Your task to perform on an android device: check android version Image 0: 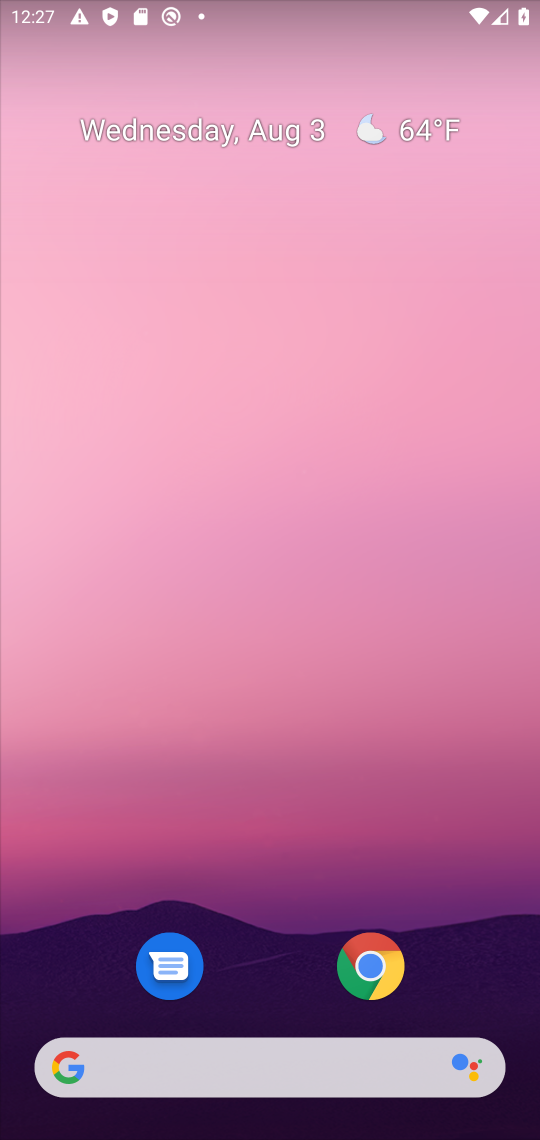
Step 0: drag from (252, 977) to (283, 300)
Your task to perform on an android device: check android version Image 1: 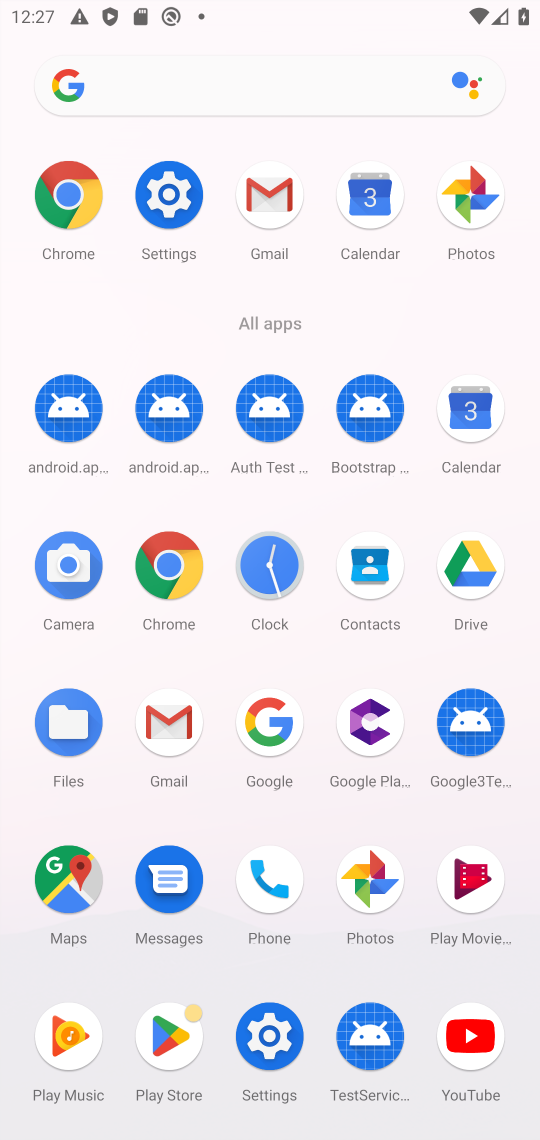
Step 1: click (179, 204)
Your task to perform on an android device: check android version Image 2: 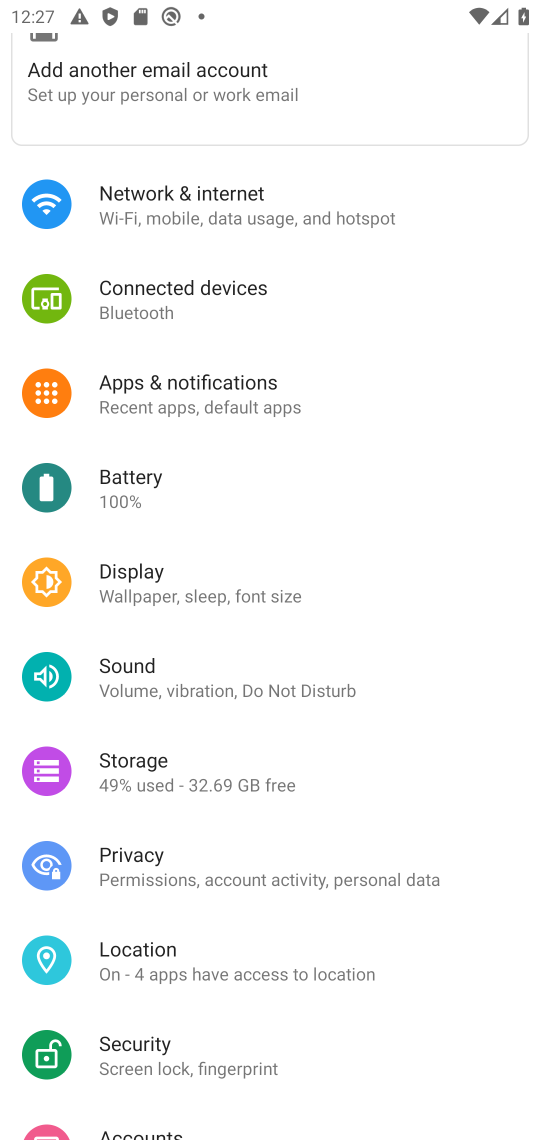
Step 2: drag from (258, 1037) to (258, 343)
Your task to perform on an android device: check android version Image 3: 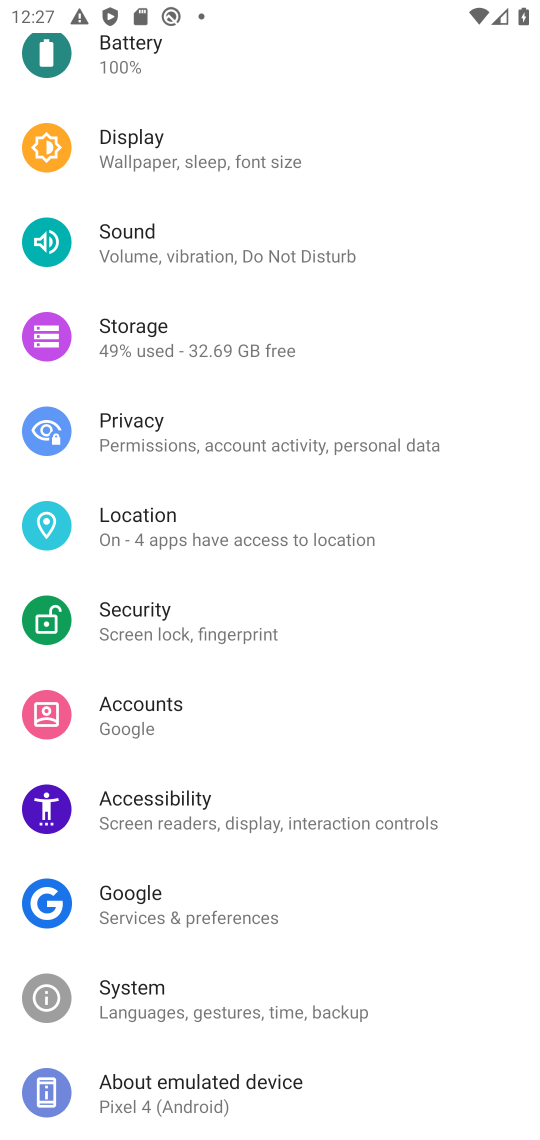
Step 3: drag from (252, 979) to (273, 453)
Your task to perform on an android device: check android version Image 4: 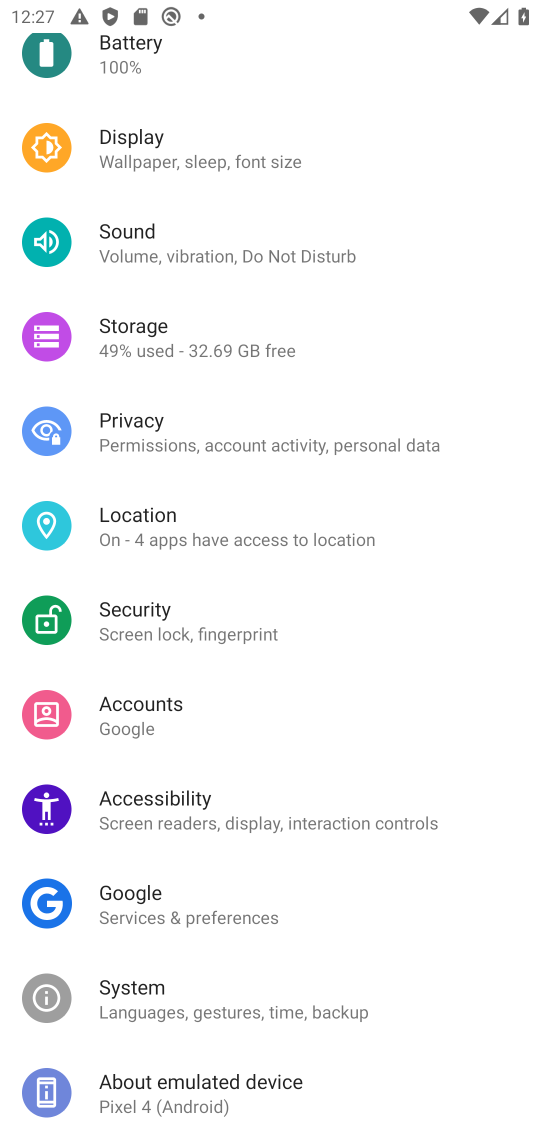
Step 4: click (211, 1076)
Your task to perform on an android device: check android version Image 5: 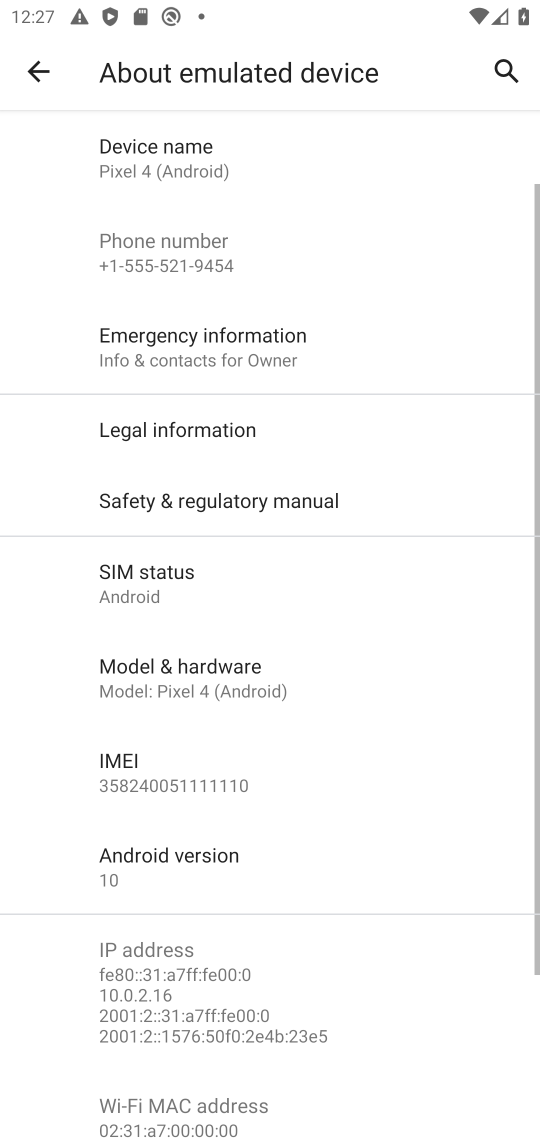
Step 5: drag from (208, 975) to (308, 377)
Your task to perform on an android device: check android version Image 6: 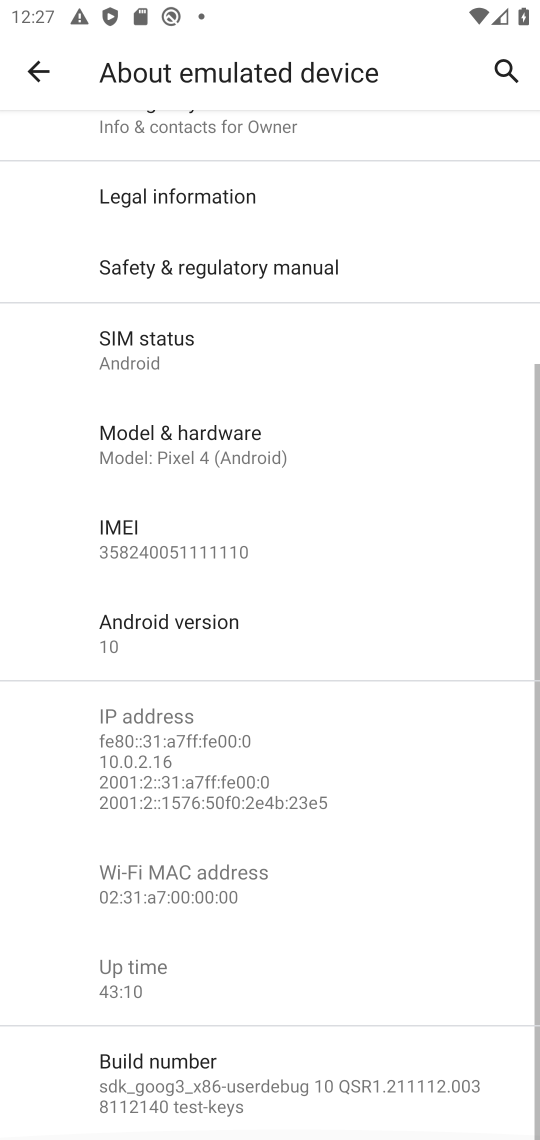
Step 6: click (252, 655)
Your task to perform on an android device: check android version Image 7: 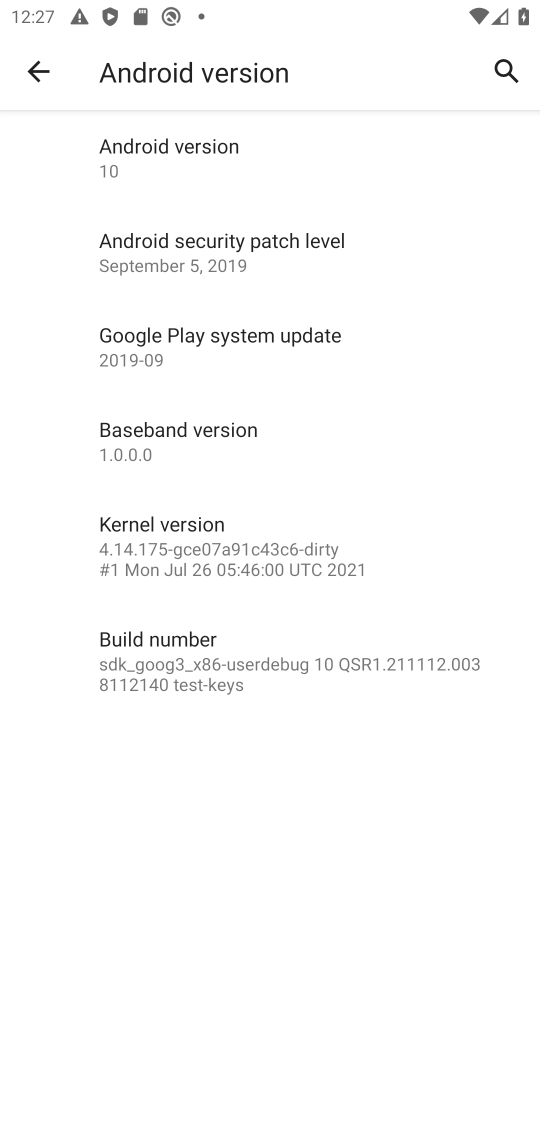
Step 7: click (212, 137)
Your task to perform on an android device: check android version Image 8: 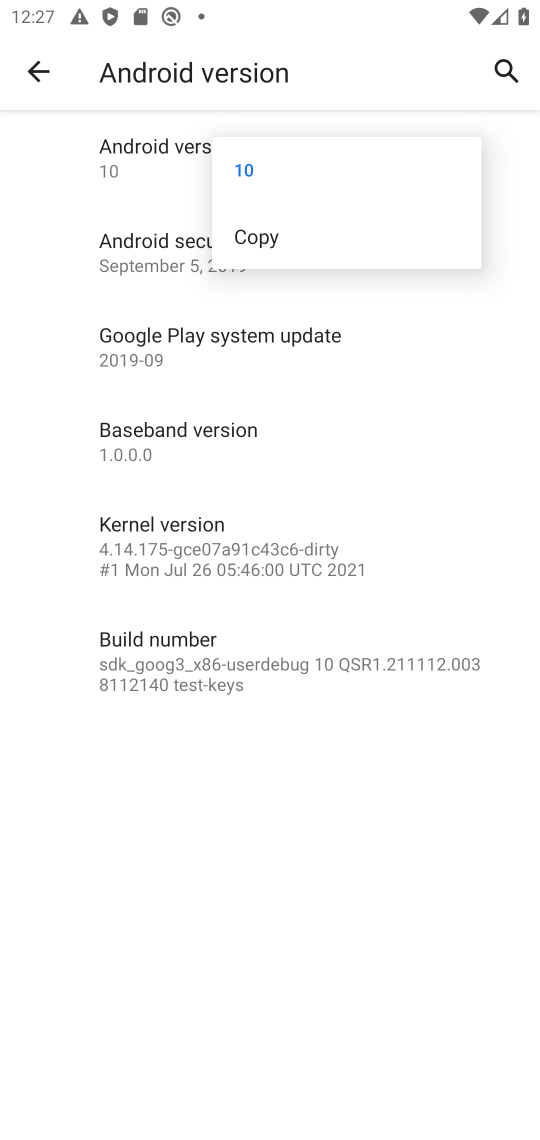
Step 8: click (157, 166)
Your task to perform on an android device: check android version Image 9: 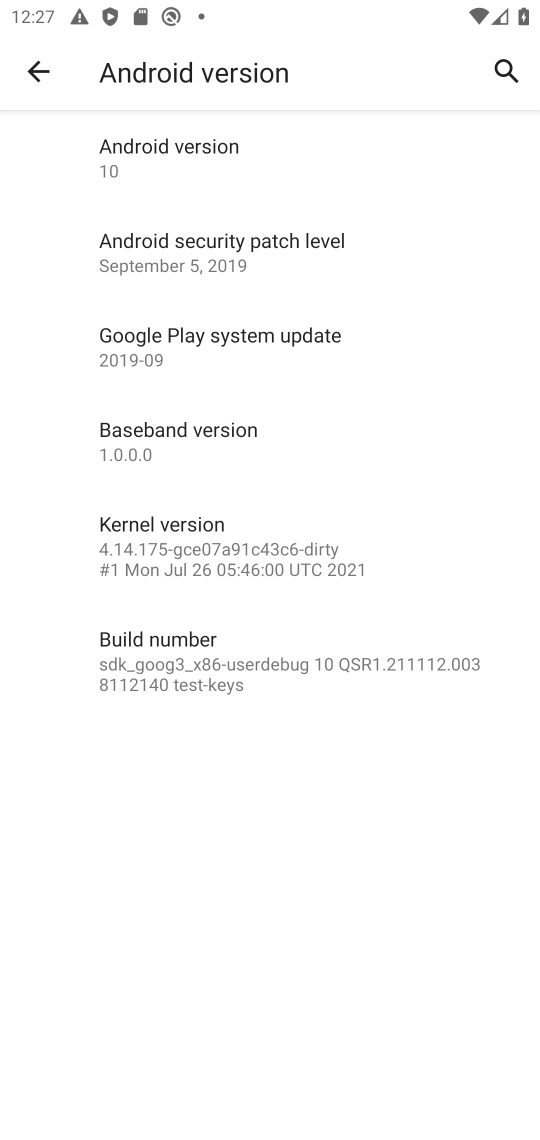
Step 9: click (157, 166)
Your task to perform on an android device: check android version Image 10: 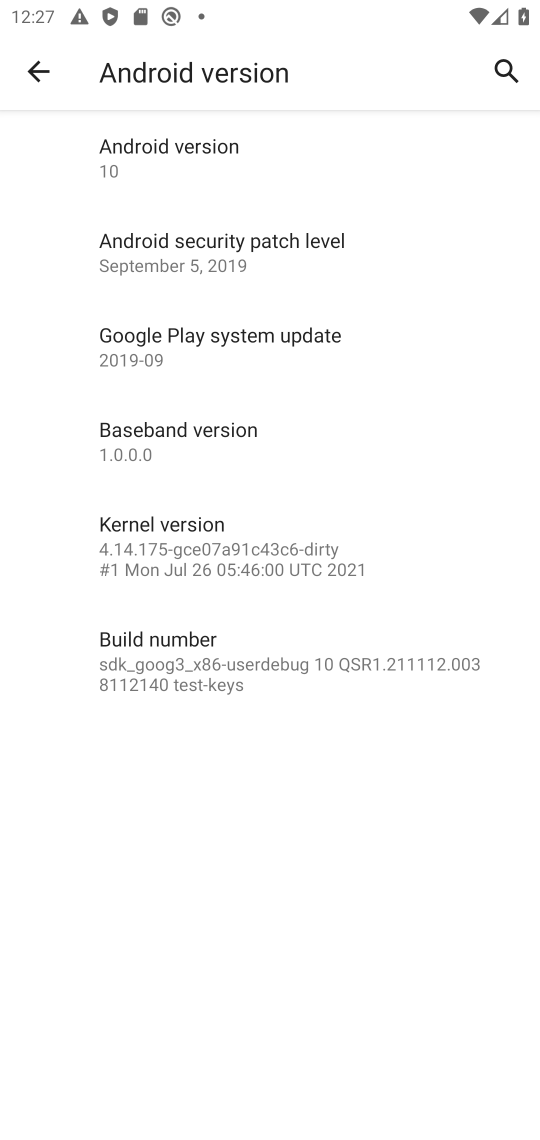
Step 10: task complete